Your task to perform on an android device: turn on data saver in the chrome app Image 0: 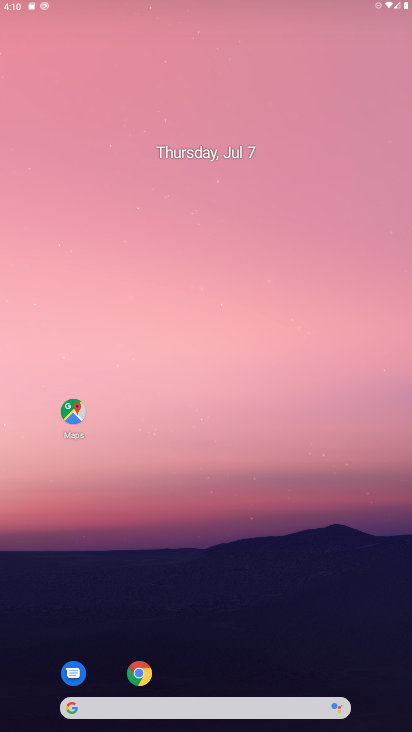
Step 0: press home button
Your task to perform on an android device: turn on data saver in the chrome app Image 1: 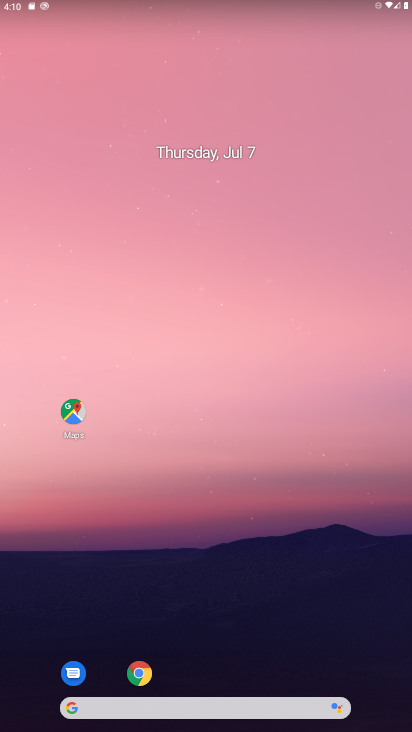
Step 1: click (139, 668)
Your task to perform on an android device: turn on data saver in the chrome app Image 2: 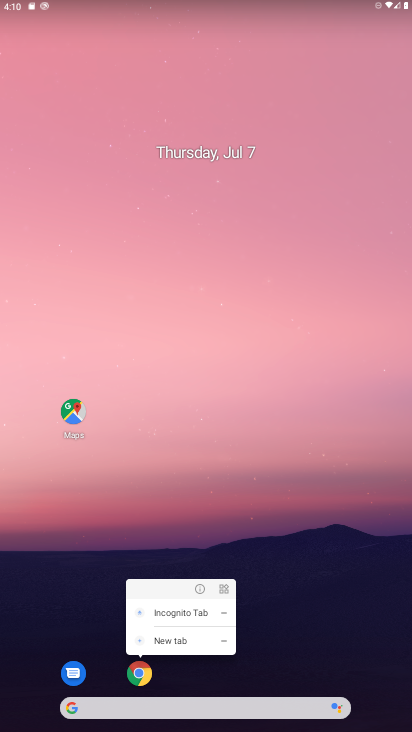
Step 2: click (138, 661)
Your task to perform on an android device: turn on data saver in the chrome app Image 3: 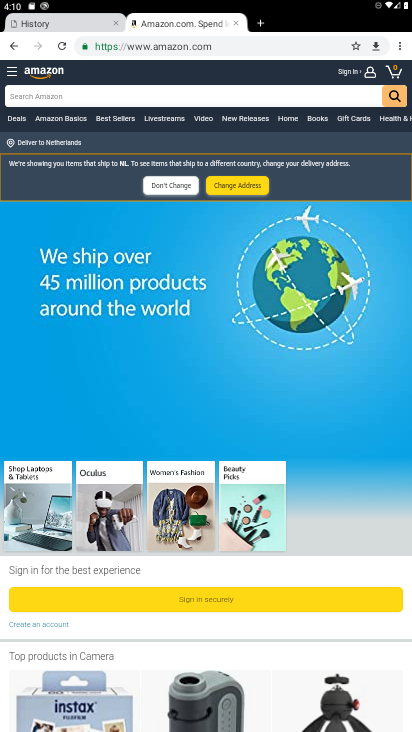
Step 3: click (401, 45)
Your task to perform on an android device: turn on data saver in the chrome app Image 4: 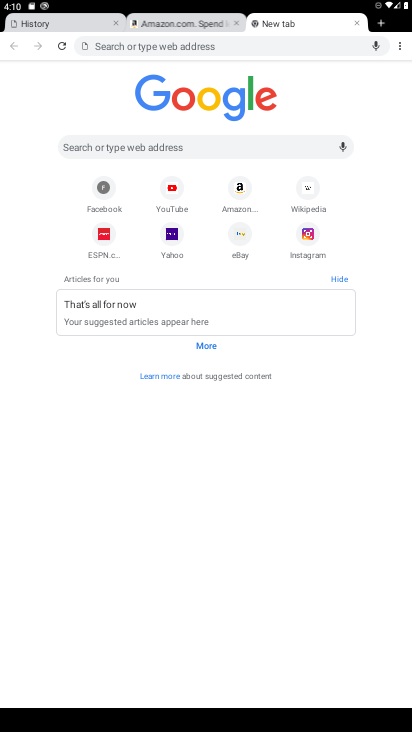
Step 4: click (397, 44)
Your task to perform on an android device: turn on data saver in the chrome app Image 5: 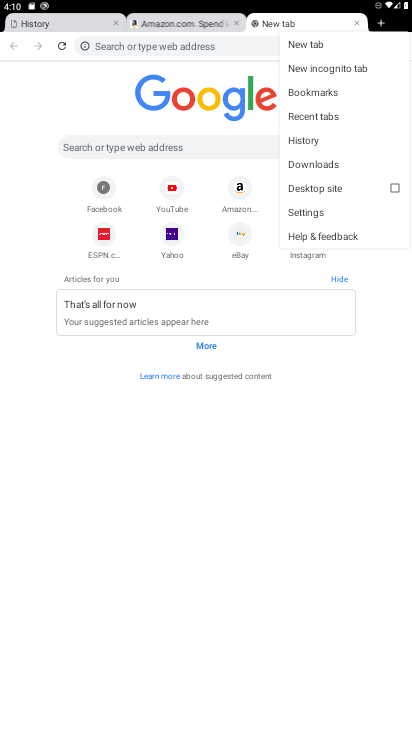
Step 5: click (329, 209)
Your task to perform on an android device: turn on data saver in the chrome app Image 6: 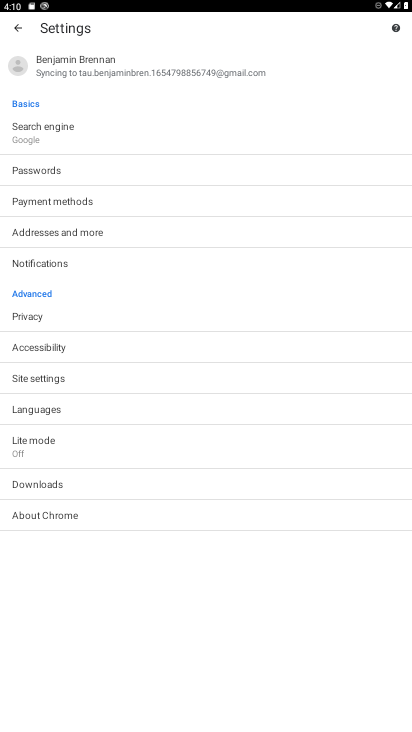
Step 6: click (59, 445)
Your task to perform on an android device: turn on data saver in the chrome app Image 7: 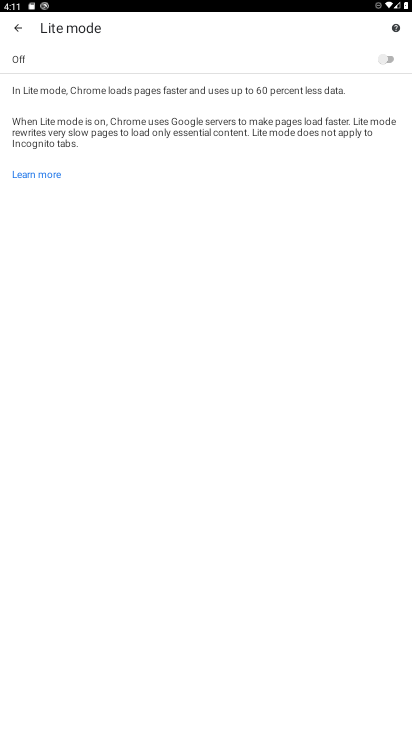
Step 7: click (388, 59)
Your task to perform on an android device: turn on data saver in the chrome app Image 8: 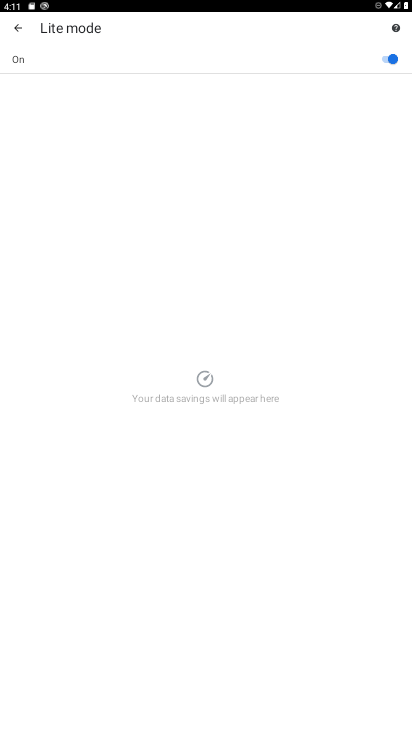
Step 8: task complete